Your task to perform on an android device: Open wifi settings Image 0: 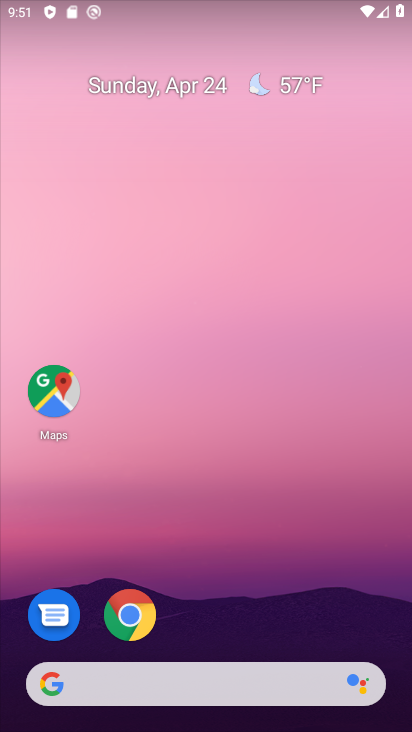
Step 0: drag from (371, 633) to (347, 135)
Your task to perform on an android device: Open wifi settings Image 1: 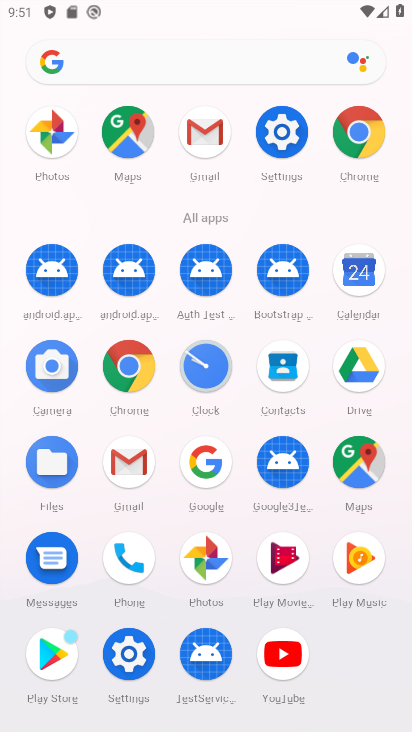
Step 1: click (127, 657)
Your task to perform on an android device: Open wifi settings Image 2: 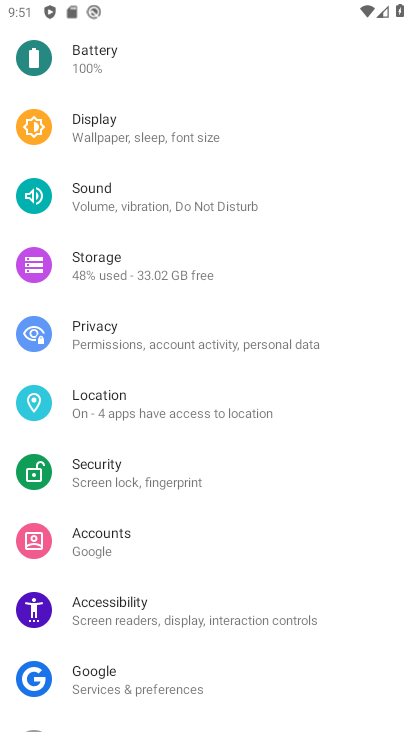
Step 2: drag from (331, 131) to (382, 467)
Your task to perform on an android device: Open wifi settings Image 3: 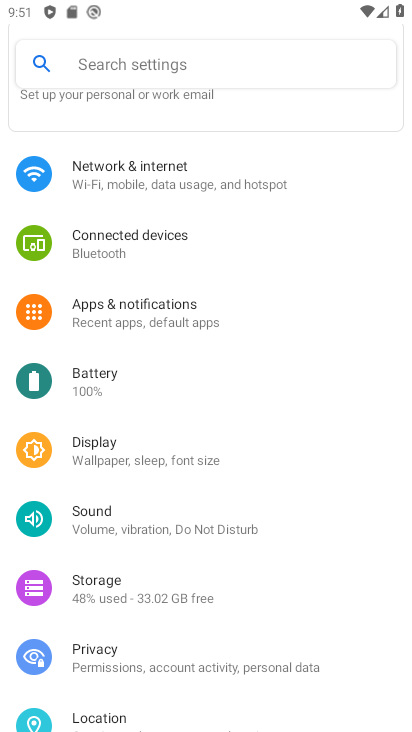
Step 3: click (113, 169)
Your task to perform on an android device: Open wifi settings Image 4: 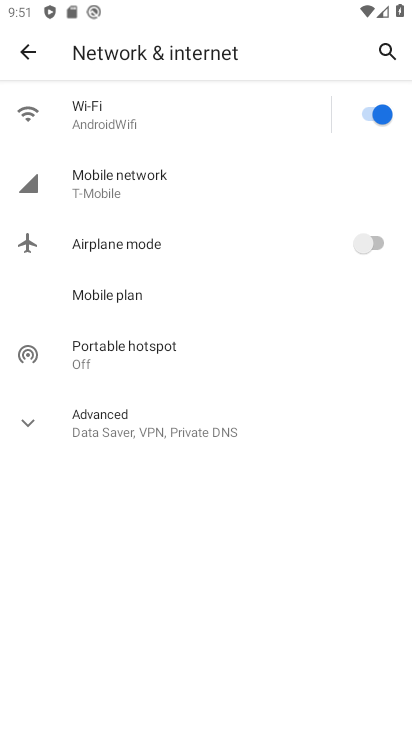
Step 4: click (100, 117)
Your task to perform on an android device: Open wifi settings Image 5: 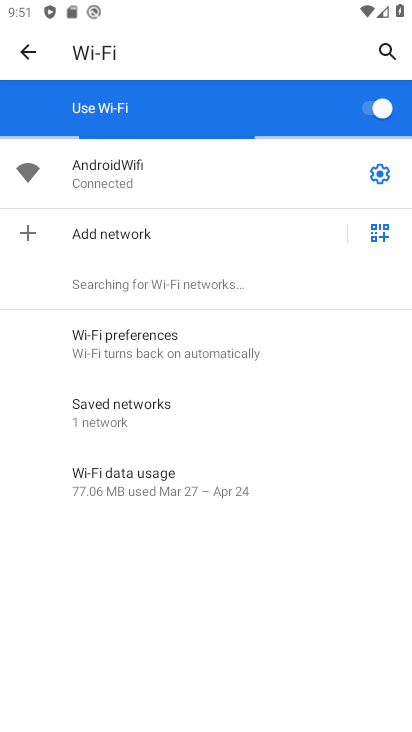
Step 5: click (379, 171)
Your task to perform on an android device: Open wifi settings Image 6: 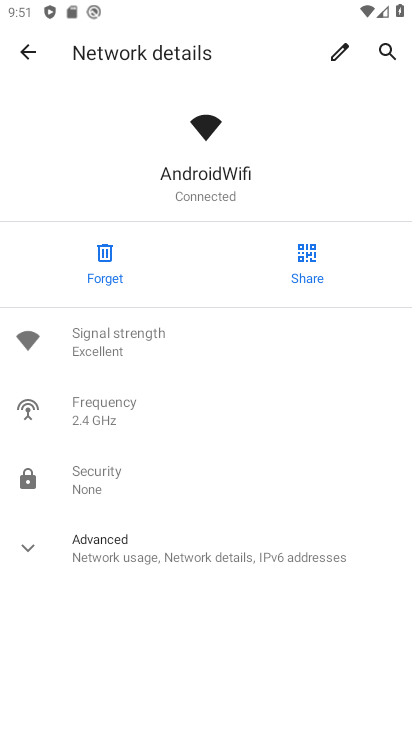
Step 6: click (23, 549)
Your task to perform on an android device: Open wifi settings Image 7: 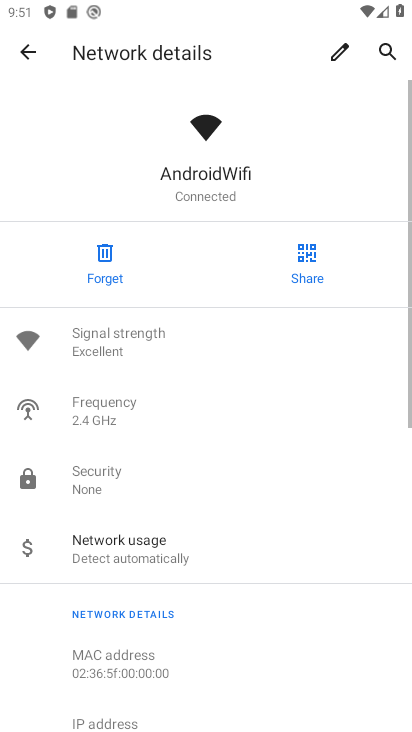
Step 7: task complete